Your task to perform on an android device: turn off picture-in-picture Image 0: 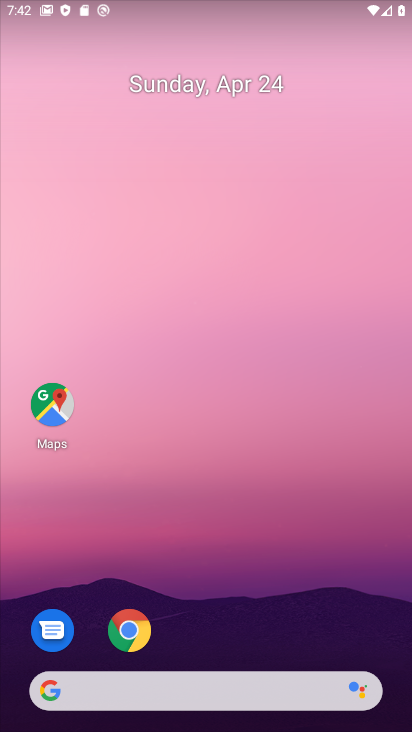
Step 0: press home button
Your task to perform on an android device: turn off picture-in-picture Image 1: 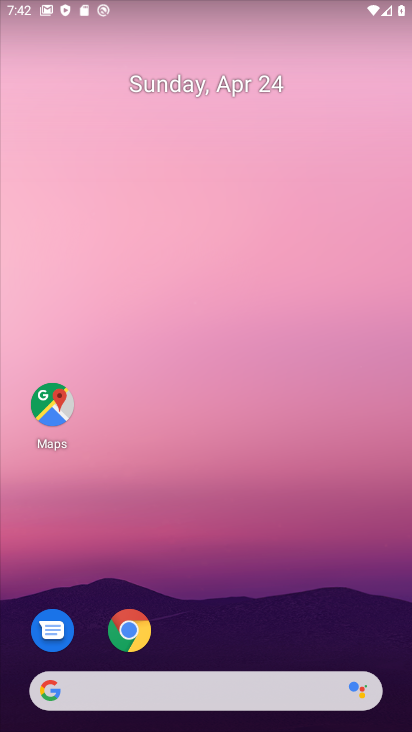
Step 1: drag from (361, 616) to (378, 96)
Your task to perform on an android device: turn off picture-in-picture Image 2: 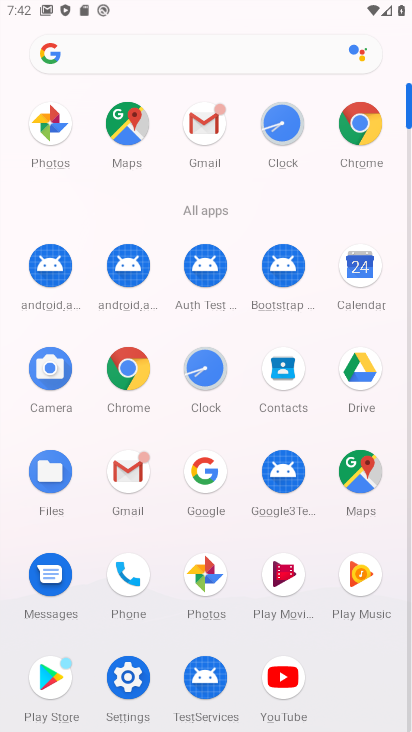
Step 2: click (114, 671)
Your task to perform on an android device: turn off picture-in-picture Image 3: 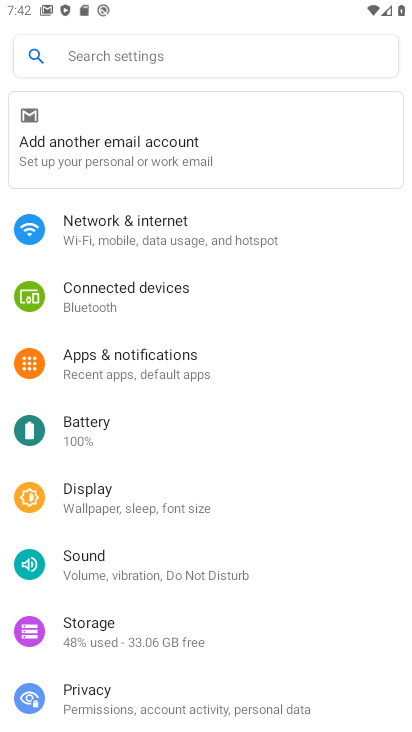
Step 3: drag from (350, 634) to (356, 388)
Your task to perform on an android device: turn off picture-in-picture Image 4: 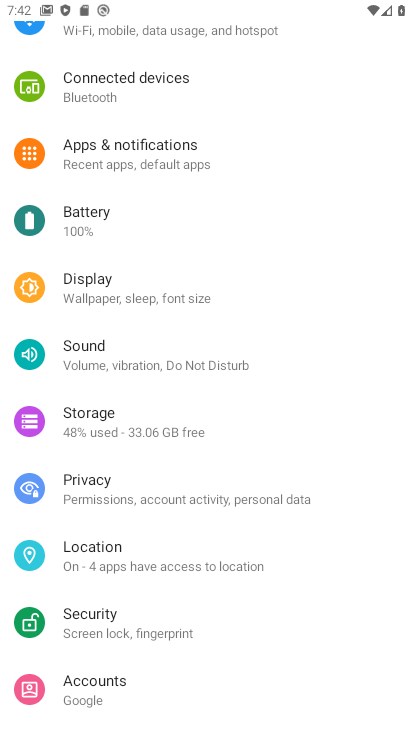
Step 4: drag from (357, 617) to (360, 335)
Your task to perform on an android device: turn off picture-in-picture Image 5: 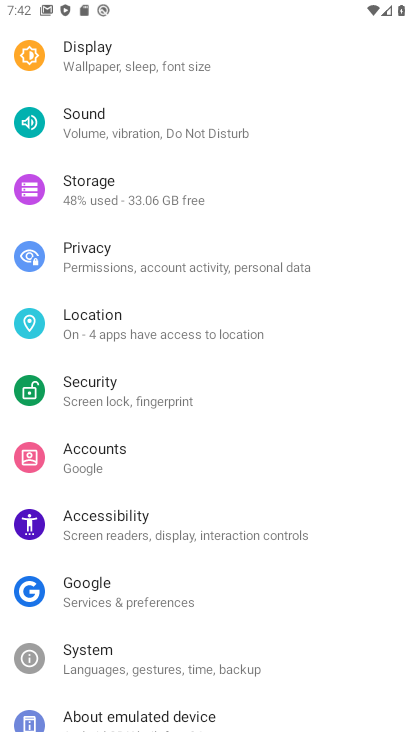
Step 5: drag from (352, 653) to (361, 389)
Your task to perform on an android device: turn off picture-in-picture Image 6: 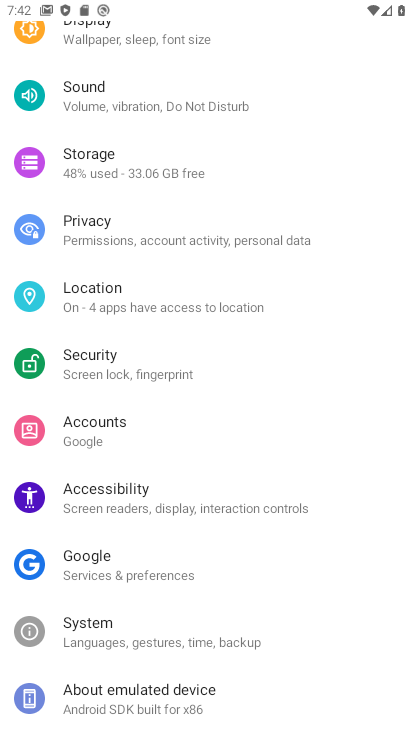
Step 6: drag from (348, 616) to (349, 407)
Your task to perform on an android device: turn off picture-in-picture Image 7: 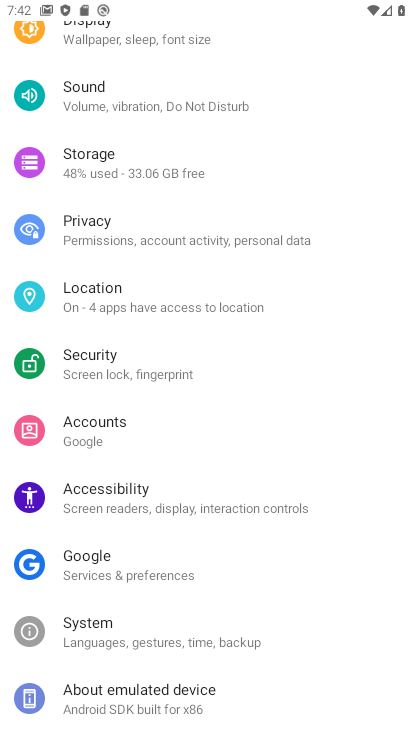
Step 7: drag from (359, 305) to (354, 582)
Your task to perform on an android device: turn off picture-in-picture Image 8: 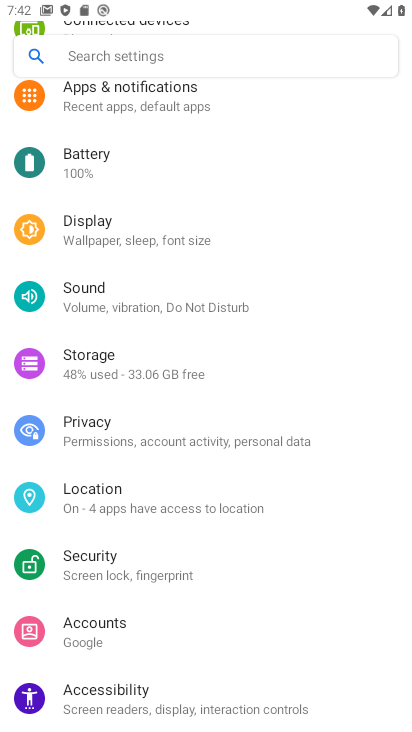
Step 8: drag from (358, 286) to (358, 525)
Your task to perform on an android device: turn off picture-in-picture Image 9: 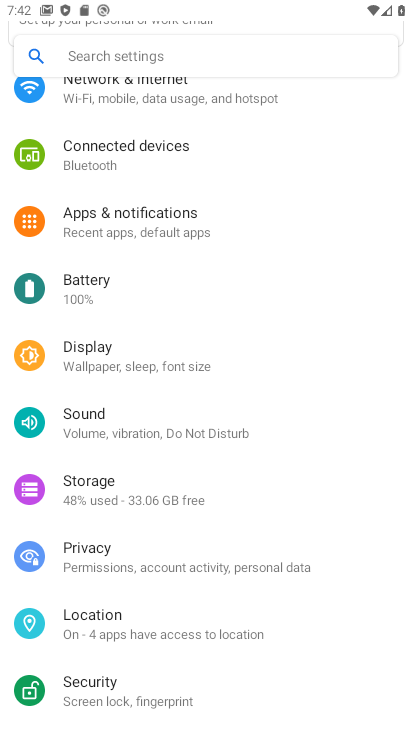
Step 9: drag from (324, 315) to (333, 491)
Your task to perform on an android device: turn off picture-in-picture Image 10: 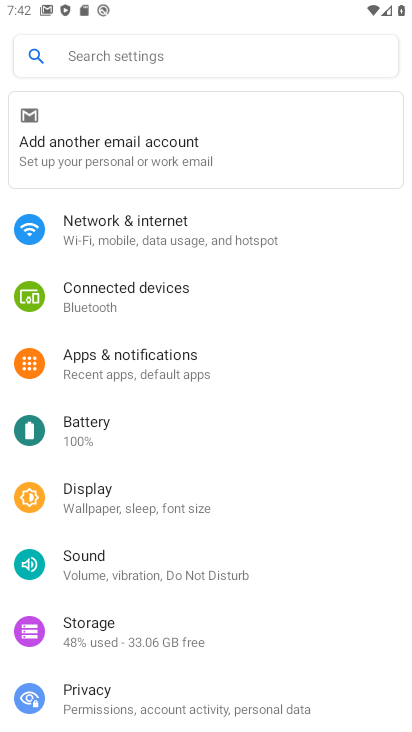
Step 10: click (167, 365)
Your task to perform on an android device: turn off picture-in-picture Image 11: 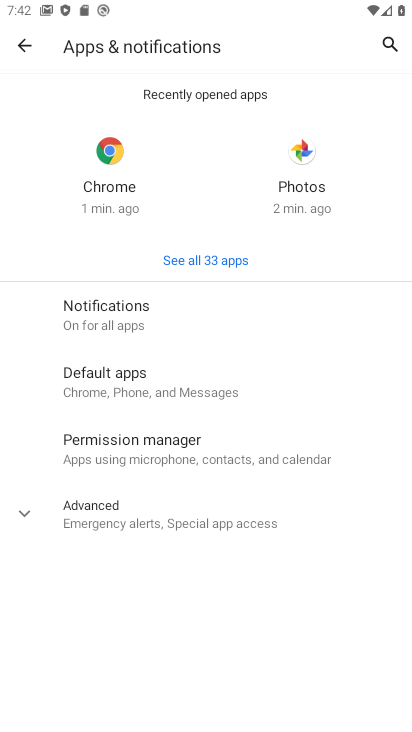
Step 11: click (190, 518)
Your task to perform on an android device: turn off picture-in-picture Image 12: 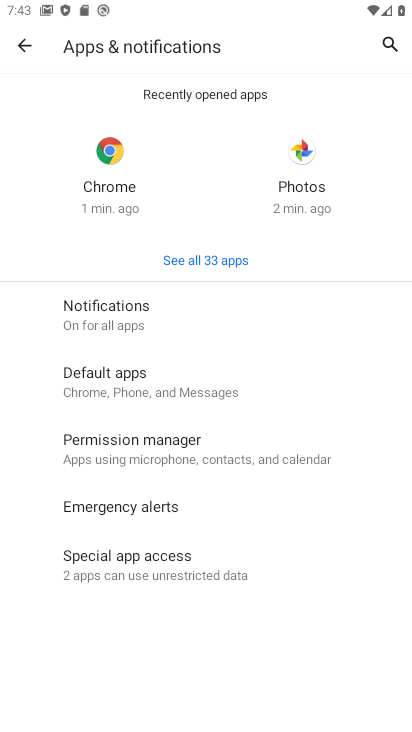
Step 12: click (133, 568)
Your task to perform on an android device: turn off picture-in-picture Image 13: 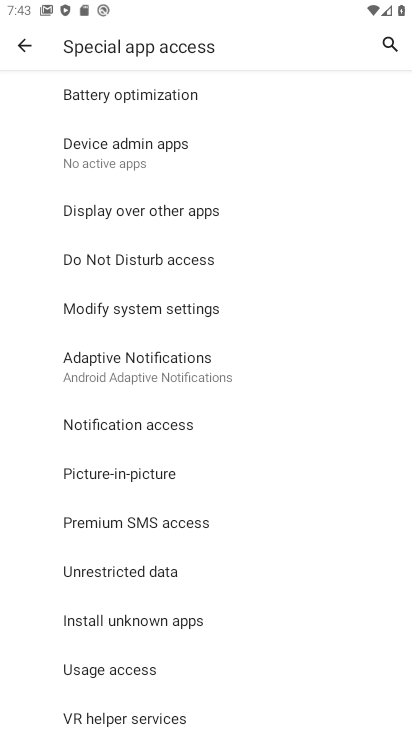
Step 13: click (163, 475)
Your task to perform on an android device: turn off picture-in-picture Image 14: 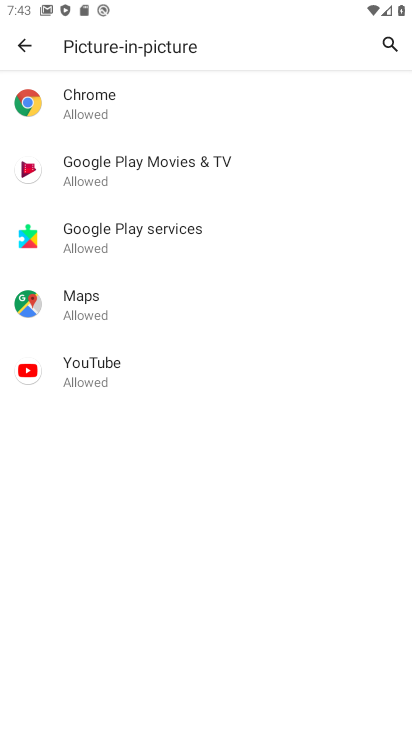
Step 14: click (104, 368)
Your task to perform on an android device: turn off picture-in-picture Image 15: 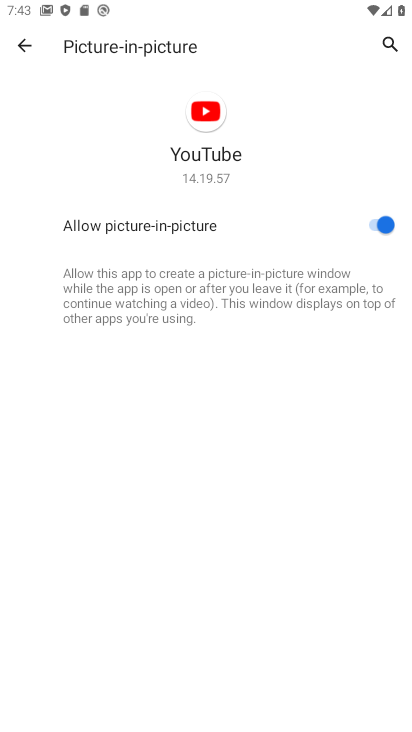
Step 15: click (378, 221)
Your task to perform on an android device: turn off picture-in-picture Image 16: 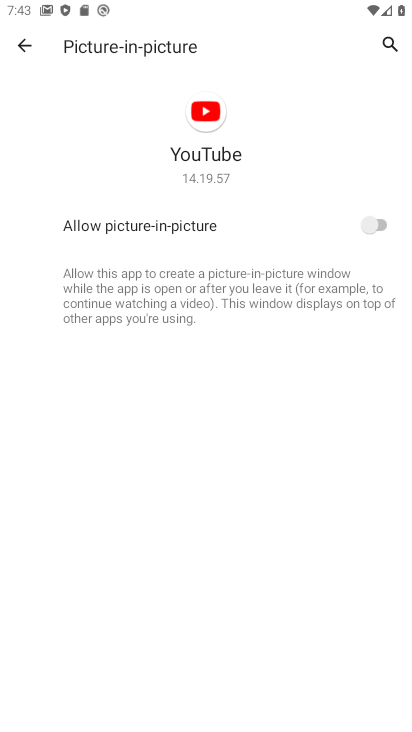
Step 16: task complete